Your task to perform on an android device: set an alarm Image 0: 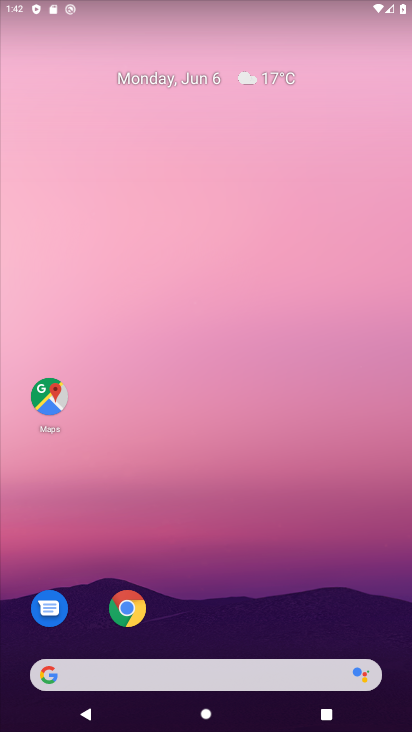
Step 0: drag from (298, 557) to (106, 68)
Your task to perform on an android device: set an alarm Image 1: 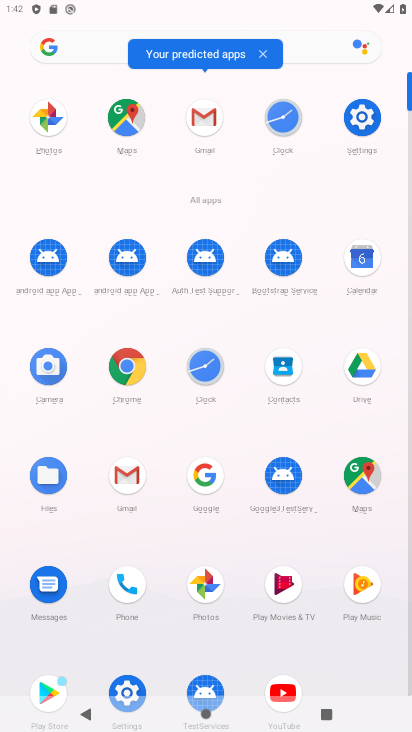
Step 1: click (208, 360)
Your task to perform on an android device: set an alarm Image 2: 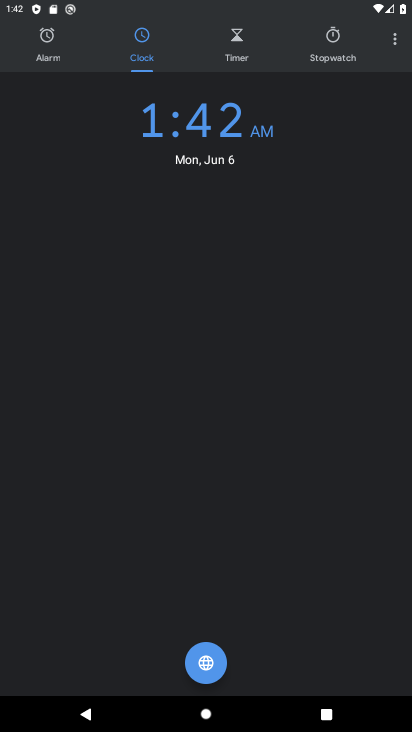
Step 2: click (248, 45)
Your task to perform on an android device: set an alarm Image 3: 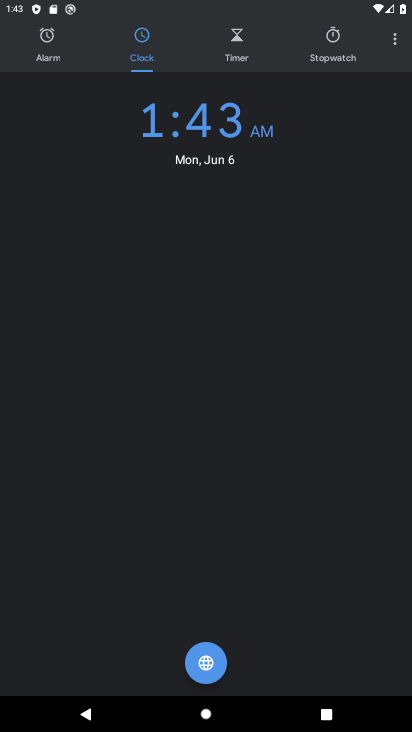
Step 3: click (243, 53)
Your task to perform on an android device: set an alarm Image 4: 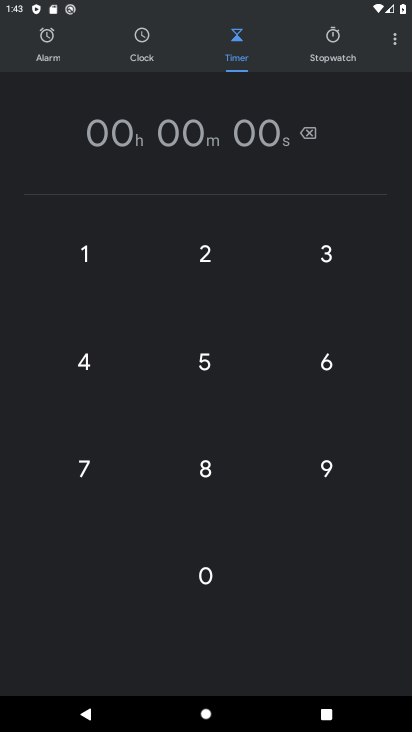
Step 4: click (205, 259)
Your task to perform on an android device: set an alarm Image 5: 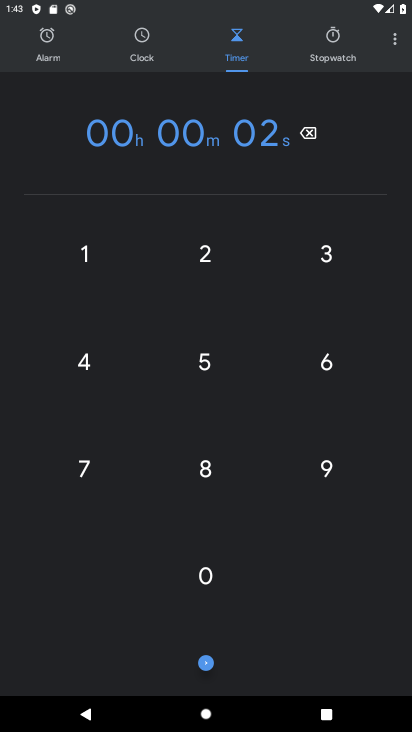
Step 5: click (199, 366)
Your task to perform on an android device: set an alarm Image 6: 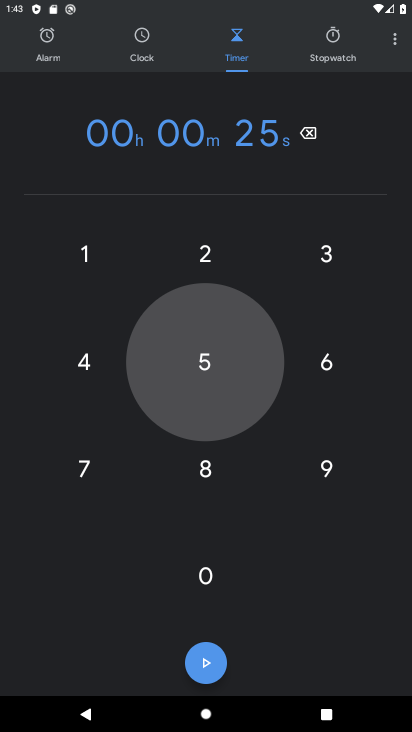
Step 6: click (208, 283)
Your task to perform on an android device: set an alarm Image 7: 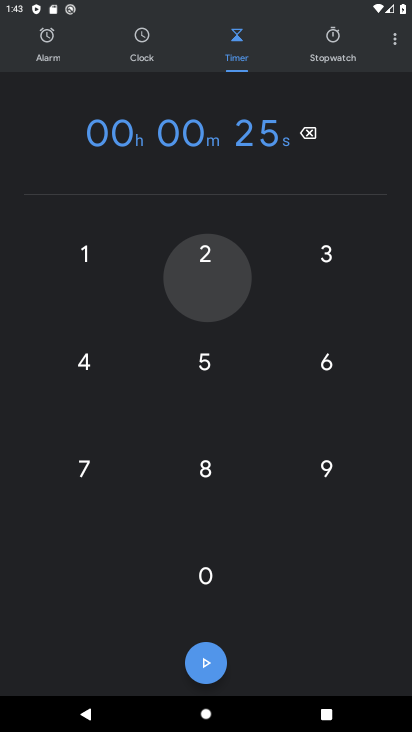
Step 7: click (209, 362)
Your task to perform on an android device: set an alarm Image 8: 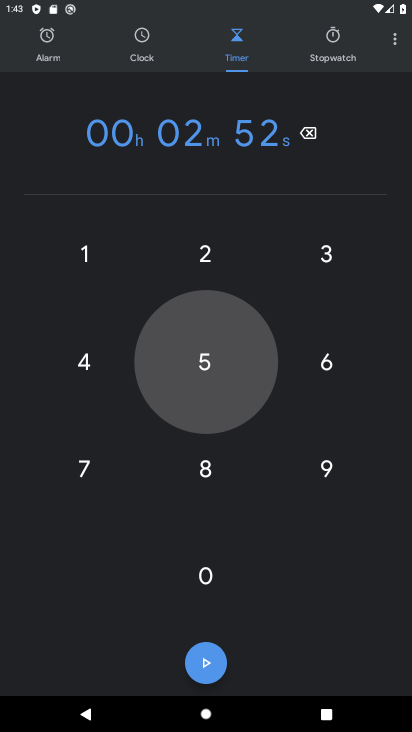
Step 8: drag from (207, 278) to (215, 341)
Your task to perform on an android device: set an alarm Image 9: 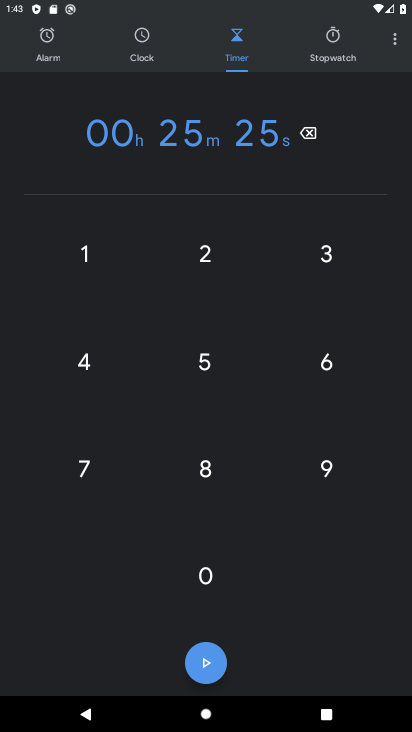
Step 9: click (205, 301)
Your task to perform on an android device: set an alarm Image 10: 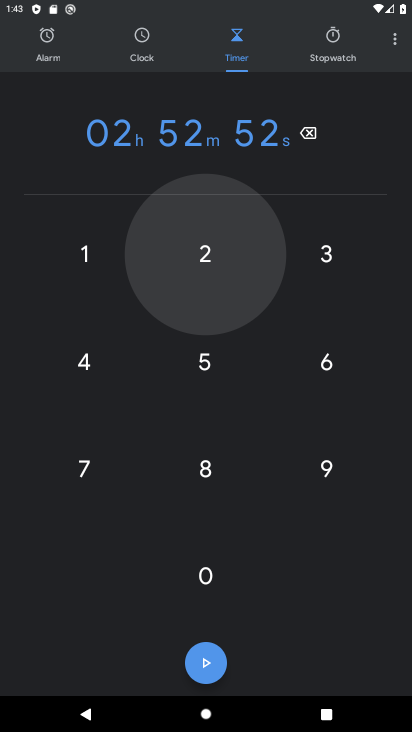
Step 10: click (205, 331)
Your task to perform on an android device: set an alarm Image 11: 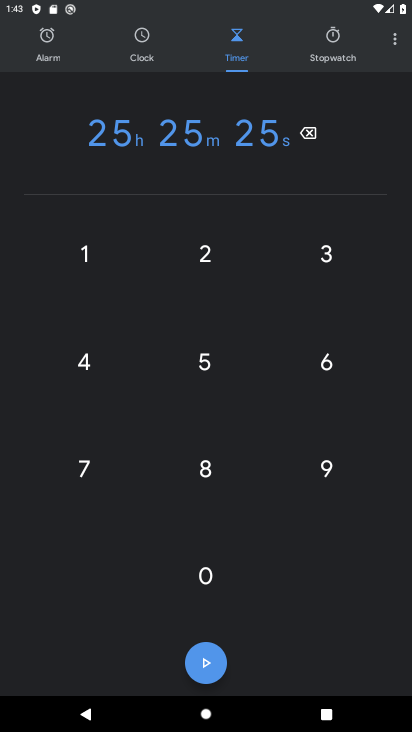
Step 11: click (203, 669)
Your task to perform on an android device: set an alarm Image 12: 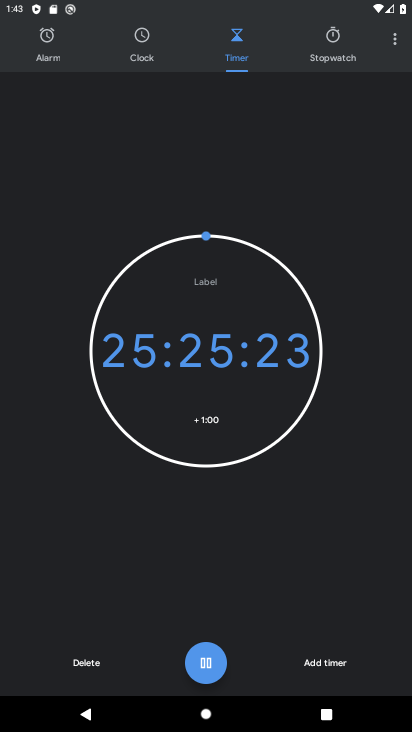
Step 12: task complete